Your task to perform on an android device: set the stopwatch Image 0: 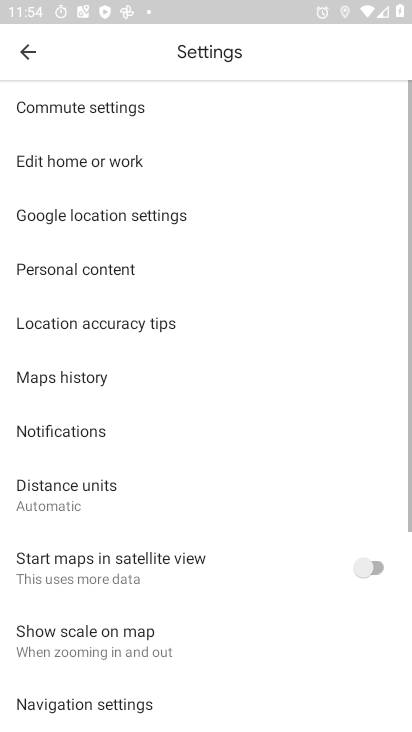
Step 0: press home button
Your task to perform on an android device: set the stopwatch Image 1: 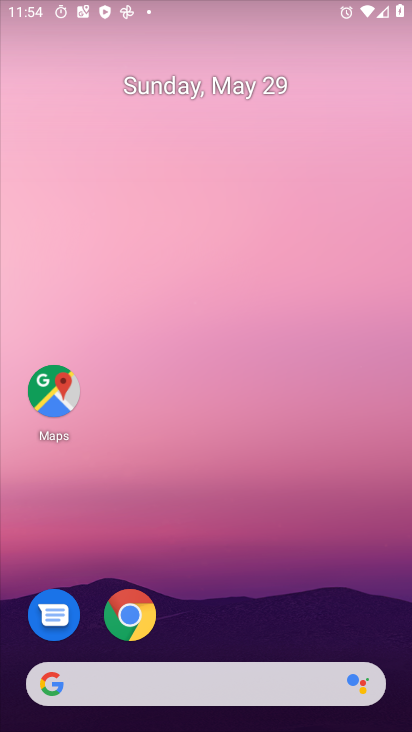
Step 1: drag from (240, 580) to (303, 78)
Your task to perform on an android device: set the stopwatch Image 2: 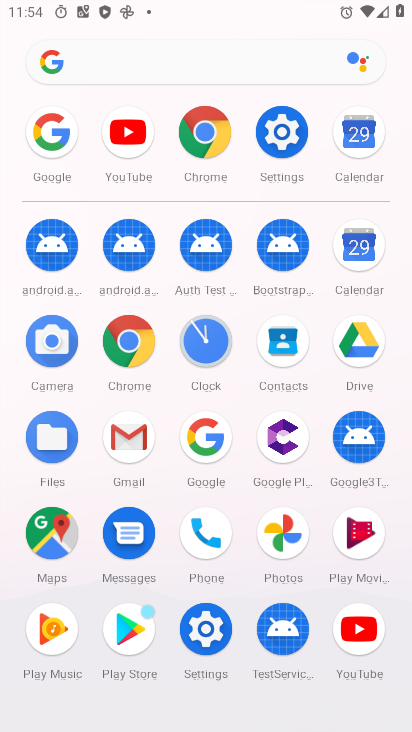
Step 2: click (212, 338)
Your task to perform on an android device: set the stopwatch Image 3: 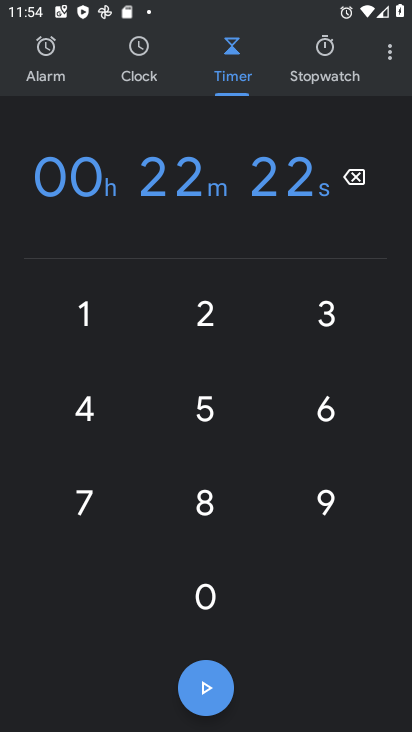
Step 3: click (317, 60)
Your task to perform on an android device: set the stopwatch Image 4: 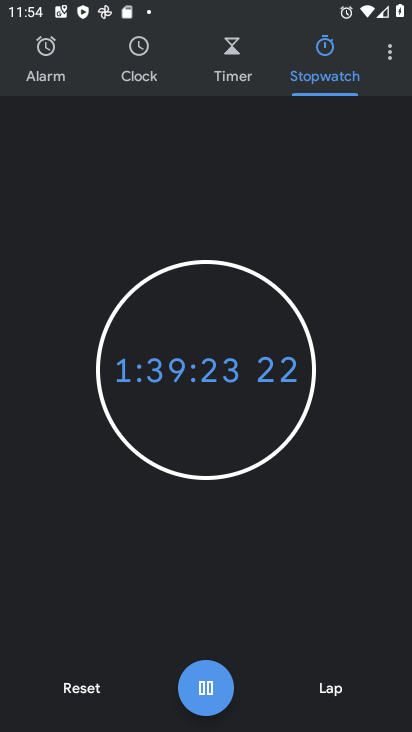
Step 4: drag from (205, 691) to (176, 627)
Your task to perform on an android device: set the stopwatch Image 5: 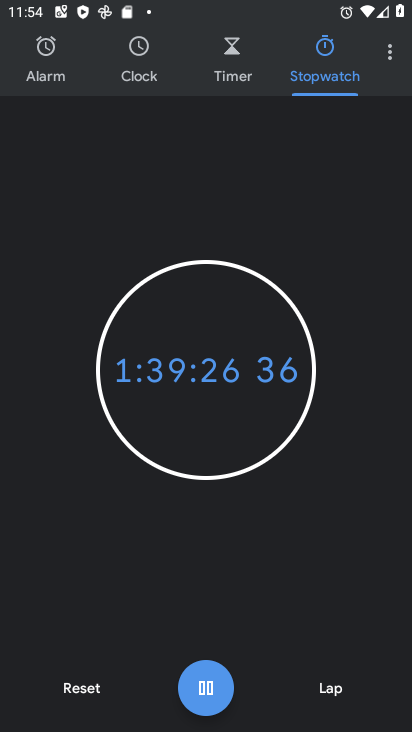
Step 5: click (218, 688)
Your task to perform on an android device: set the stopwatch Image 6: 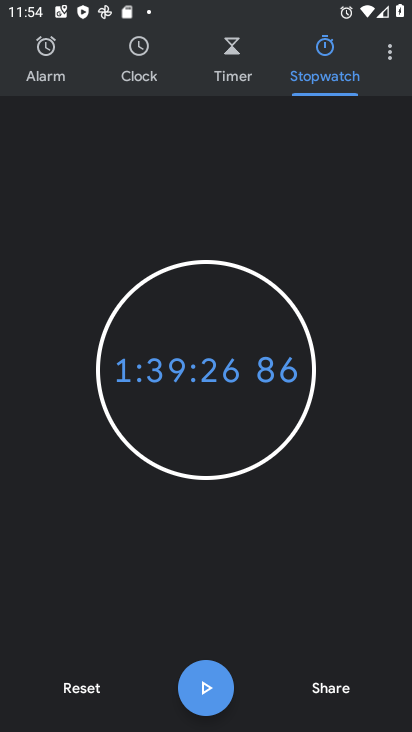
Step 6: task complete